Your task to perform on an android device: turn on javascript in the chrome app Image 0: 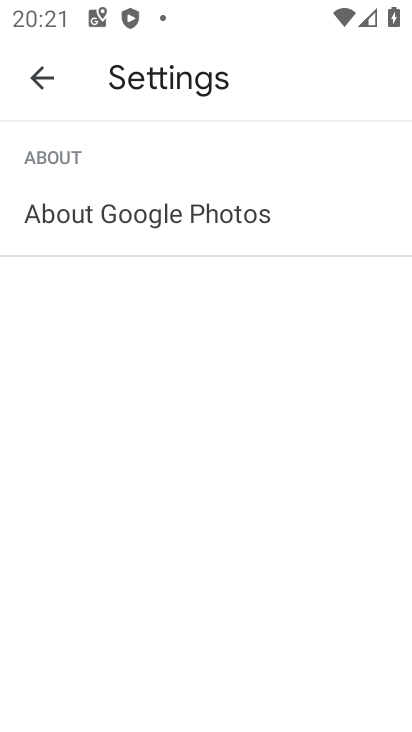
Step 0: press home button
Your task to perform on an android device: turn on javascript in the chrome app Image 1: 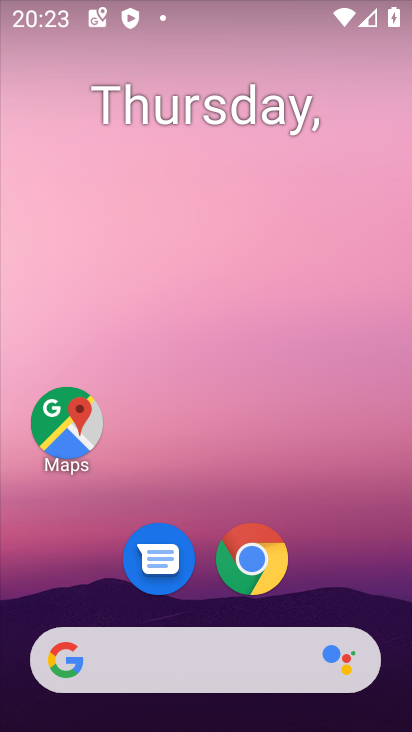
Step 1: click (236, 559)
Your task to perform on an android device: turn on javascript in the chrome app Image 2: 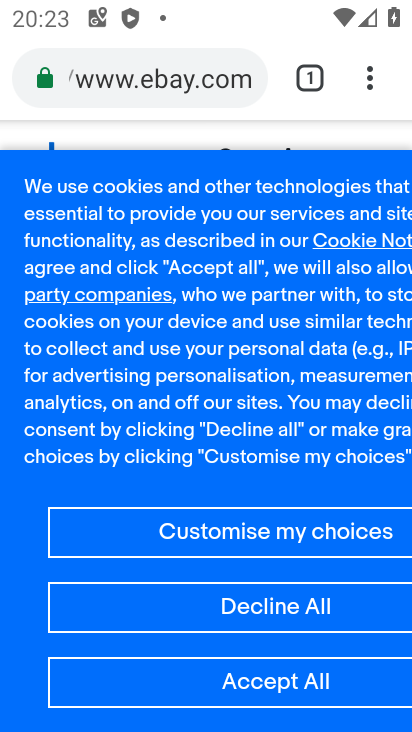
Step 2: drag from (379, 83) to (128, 616)
Your task to perform on an android device: turn on javascript in the chrome app Image 3: 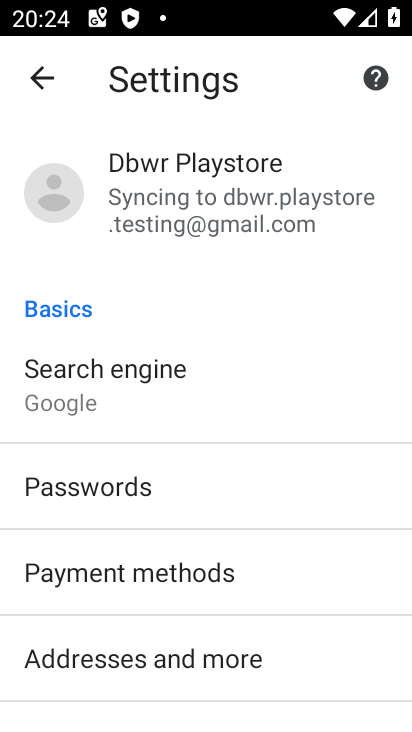
Step 3: drag from (118, 633) to (140, 295)
Your task to perform on an android device: turn on javascript in the chrome app Image 4: 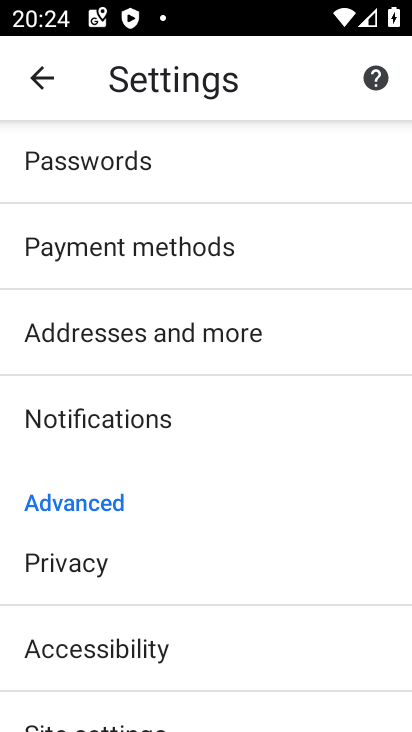
Step 4: drag from (135, 624) to (176, 105)
Your task to perform on an android device: turn on javascript in the chrome app Image 5: 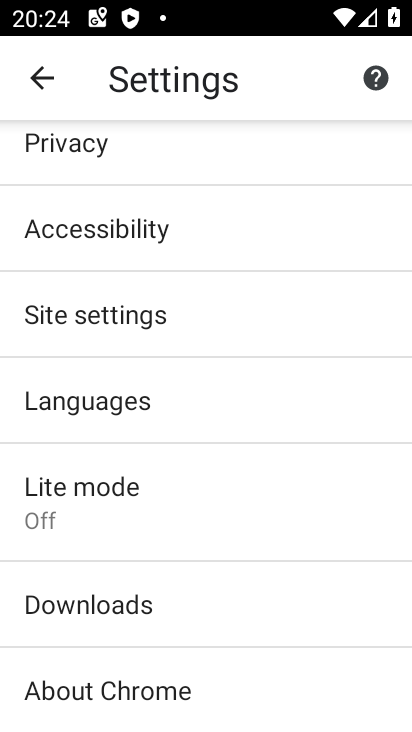
Step 5: click (88, 322)
Your task to perform on an android device: turn on javascript in the chrome app Image 6: 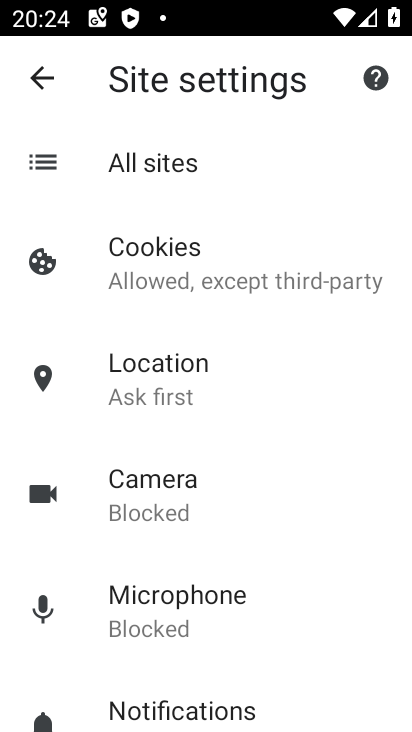
Step 6: drag from (158, 584) to (198, 271)
Your task to perform on an android device: turn on javascript in the chrome app Image 7: 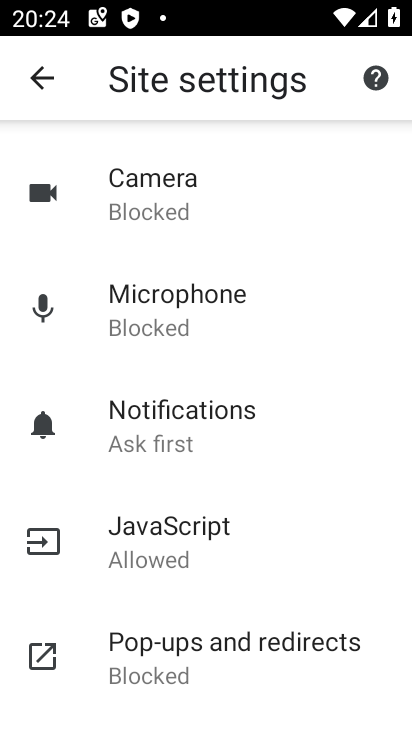
Step 7: click (192, 543)
Your task to perform on an android device: turn on javascript in the chrome app Image 8: 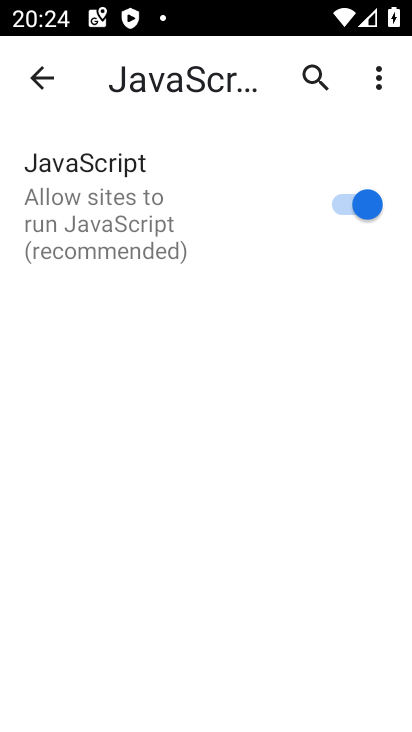
Step 8: task complete